Your task to perform on an android device: make emails show in primary in the gmail app Image 0: 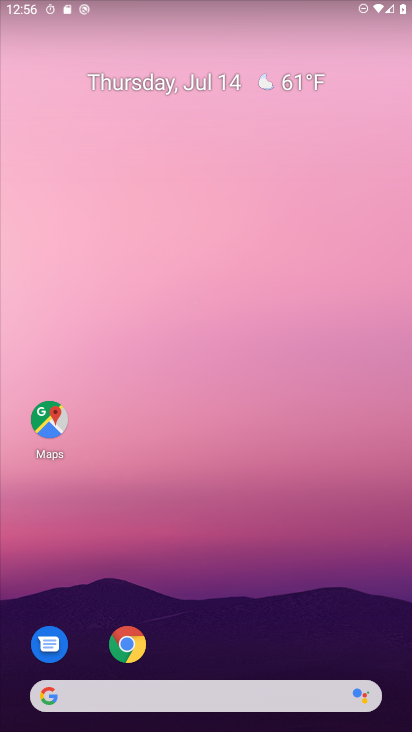
Step 0: drag from (281, 598) to (189, 21)
Your task to perform on an android device: make emails show in primary in the gmail app Image 1: 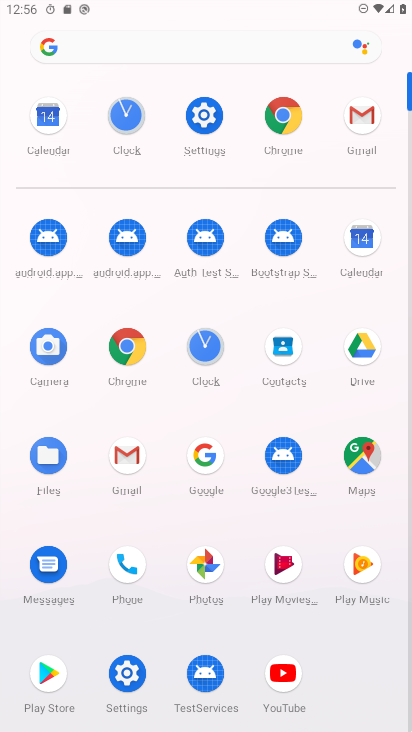
Step 1: click (130, 459)
Your task to perform on an android device: make emails show in primary in the gmail app Image 2: 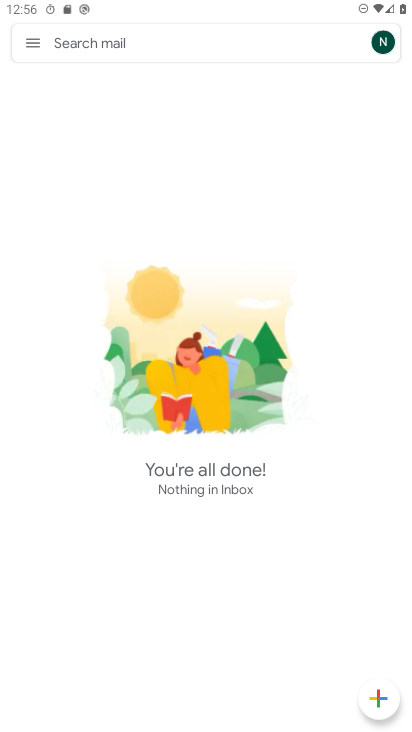
Step 2: click (37, 38)
Your task to perform on an android device: make emails show in primary in the gmail app Image 3: 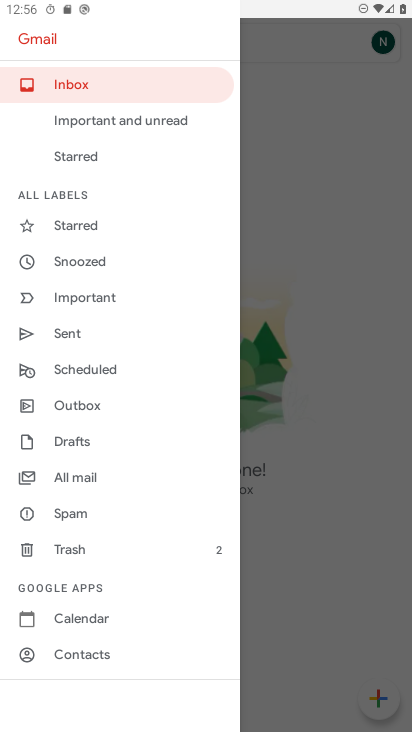
Step 3: drag from (92, 632) to (127, 208)
Your task to perform on an android device: make emails show in primary in the gmail app Image 4: 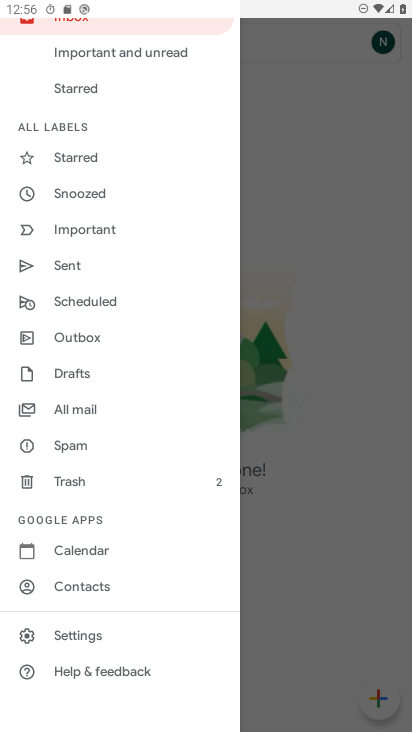
Step 4: click (100, 635)
Your task to perform on an android device: make emails show in primary in the gmail app Image 5: 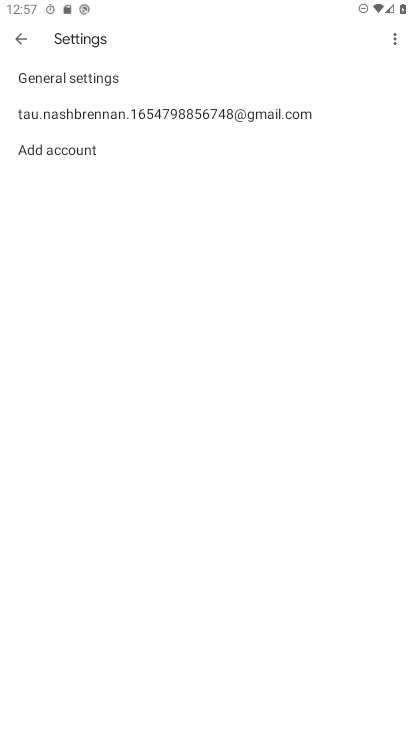
Step 5: click (224, 122)
Your task to perform on an android device: make emails show in primary in the gmail app Image 6: 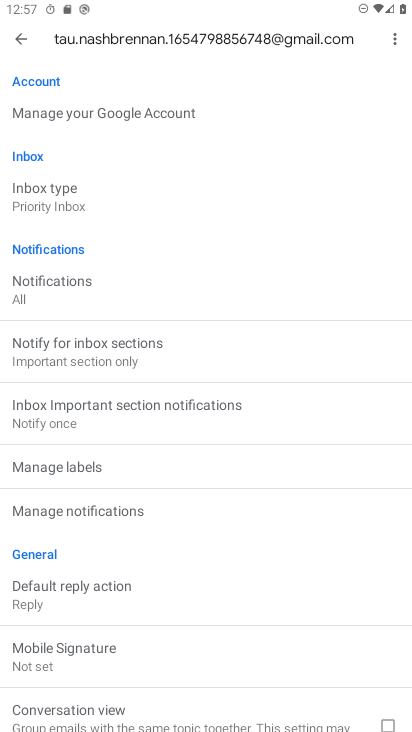
Step 6: click (75, 187)
Your task to perform on an android device: make emails show in primary in the gmail app Image 7: 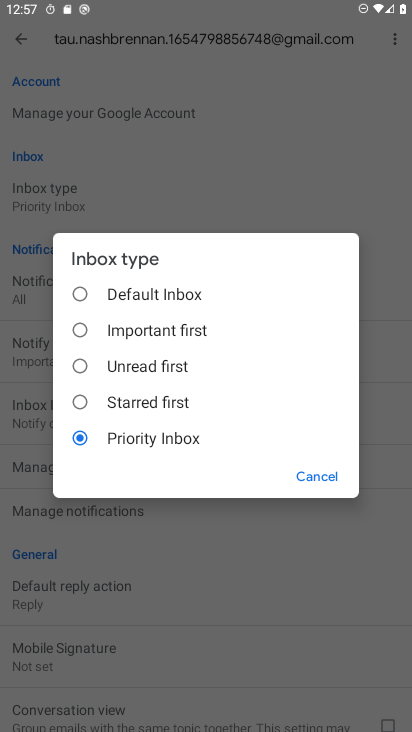
Step 7: click (148, 287)
Your task to perform on an android device: make emails show in primary in the gmail app Image 8: 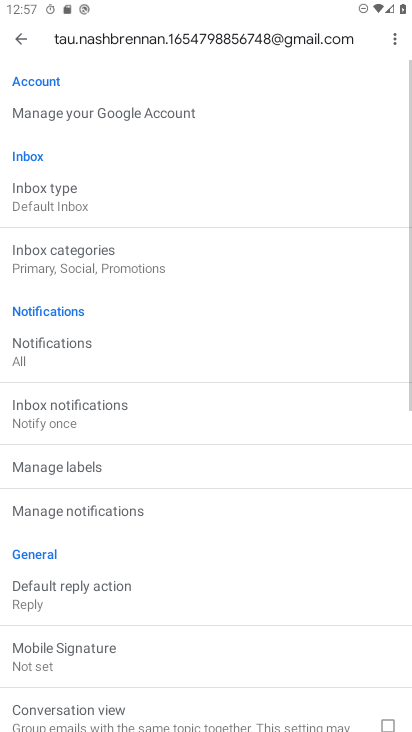
Step 8: click (131, 266)
Your task to perform on an android device: make emails show in primary in the gmail app Image 9: 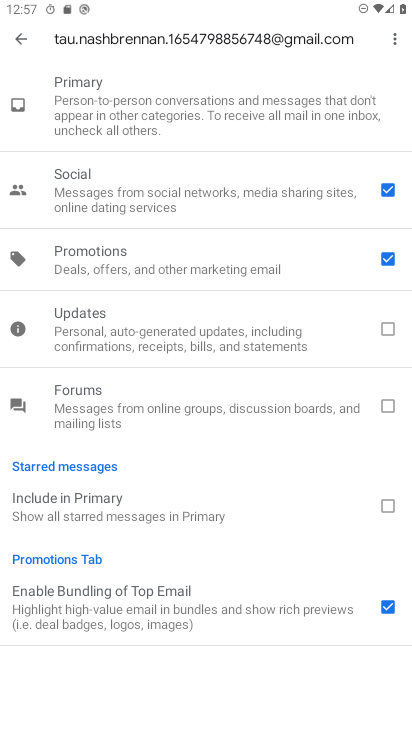
Step 9: task complete